Your task to perform on an android device: See recent photos Image 0: 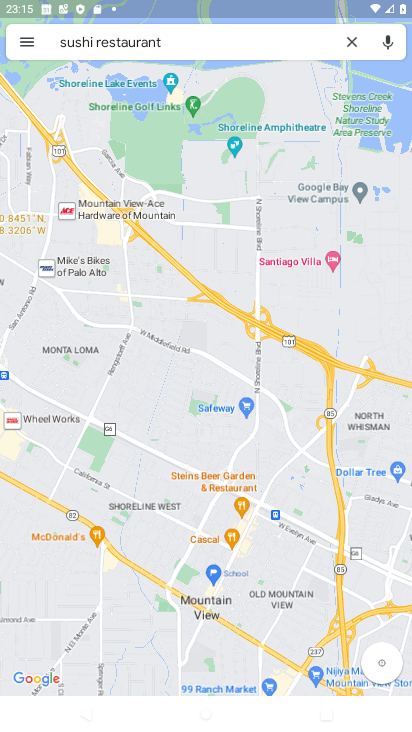
Step 0: press home button
Your task to perform on an android device: See recent photos Image 1: 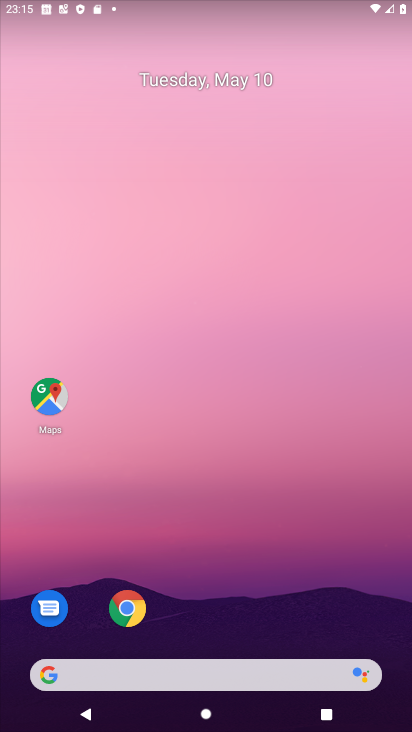
Step 1: drag from (234, 570) to (227, 286)
Your task to perform on an android device: See recent photos Image 2: 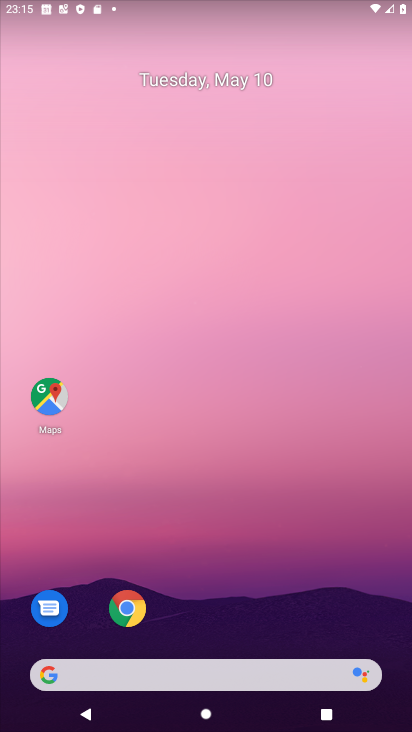
Step 2: drag from (242, 625) to (180, 259)
Your task to perform on an android device: See recent photos Image 3: 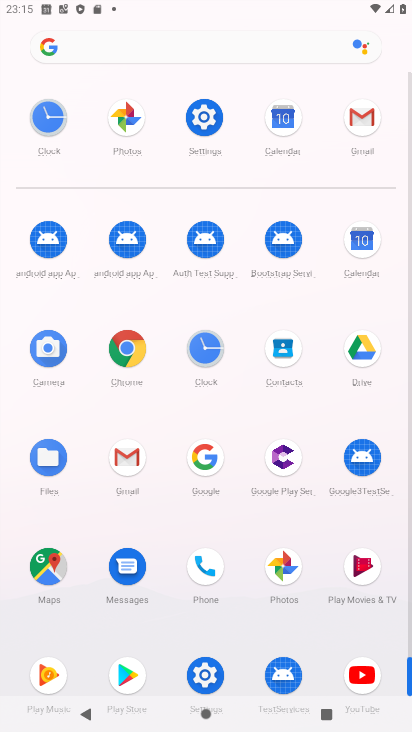
Step 3: click (290, 563)
Your task to perform on an android device: See recent photos Image 4: 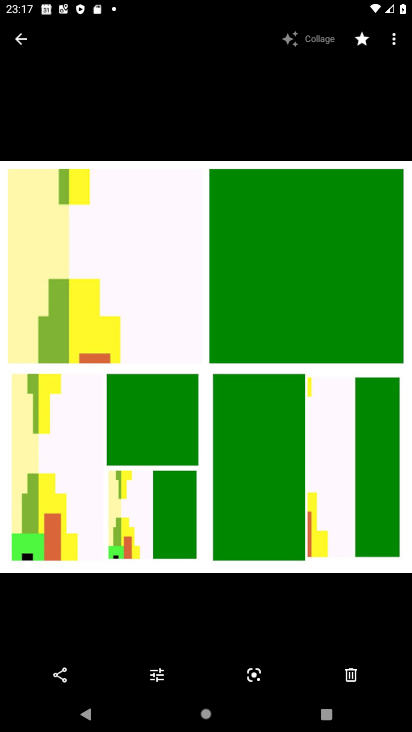
Step 4: task complete